Your task to perform on an android device: Turn off the flashlight Image 0: 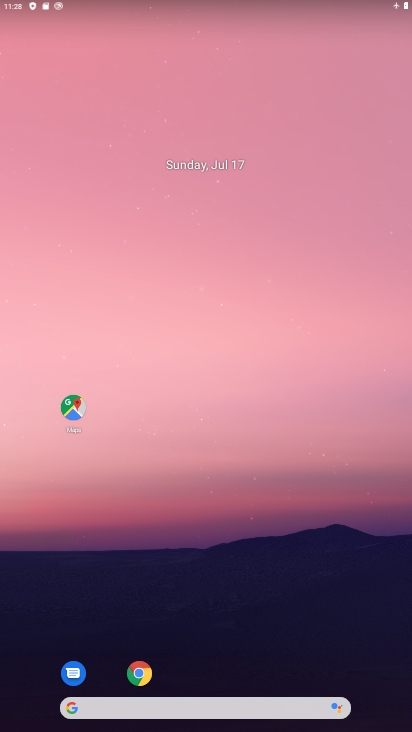
Step 0: drag from (248, 555) to (142, 70)
Your task to perform on an android device: Turn off the flashlight Image 1: 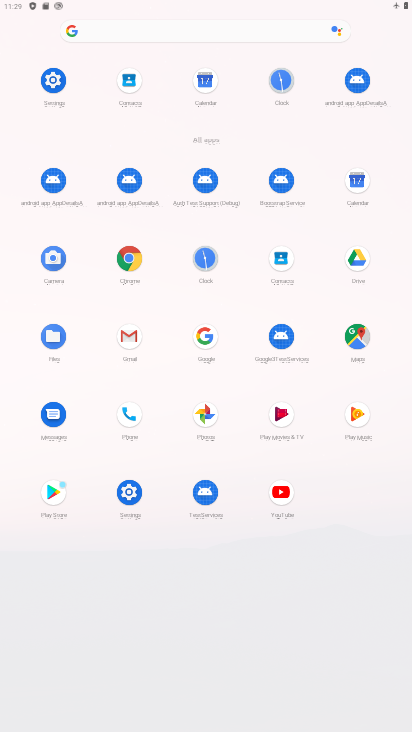
Step 1: click (52, 78)
Your task to perform on an android device: Turn off the flashlight Image 2: 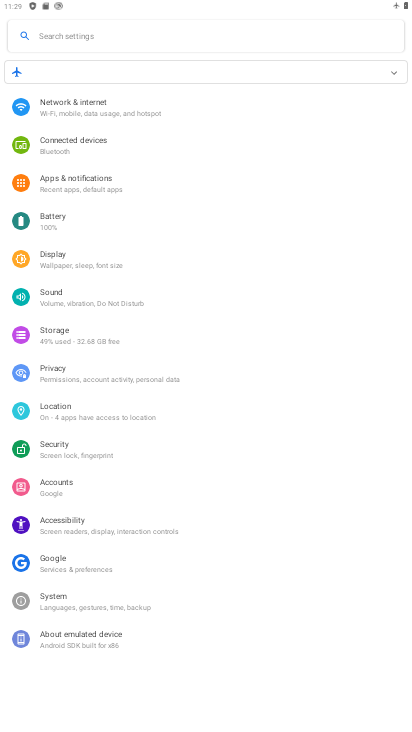
Step 2: click (60, 254)
Your task to perform on an android device: Turn off the flashlight Image 3: 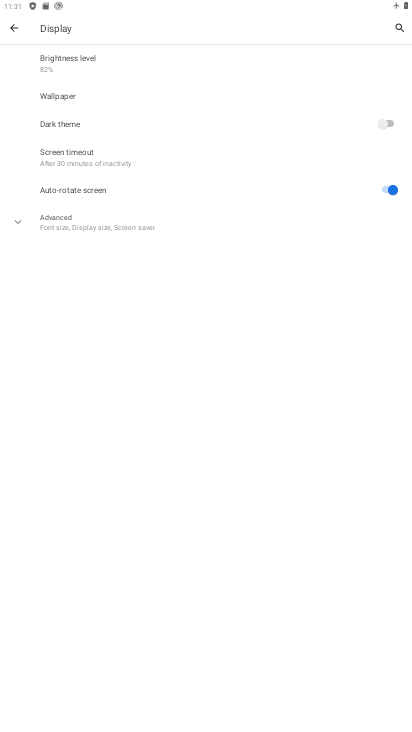
Step 3: task complete